Your task to perform on an android device: turn on the 24-hour format for clock Image 0: 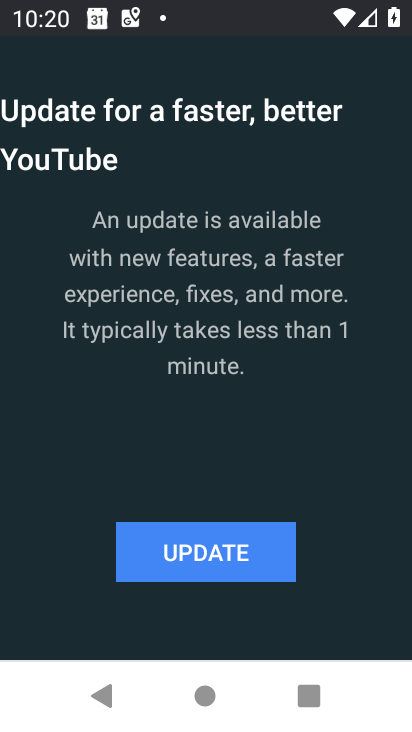
Step 0: press home button
Your task to perform on an android device: turn on the 24-hour format for clock Image 1: 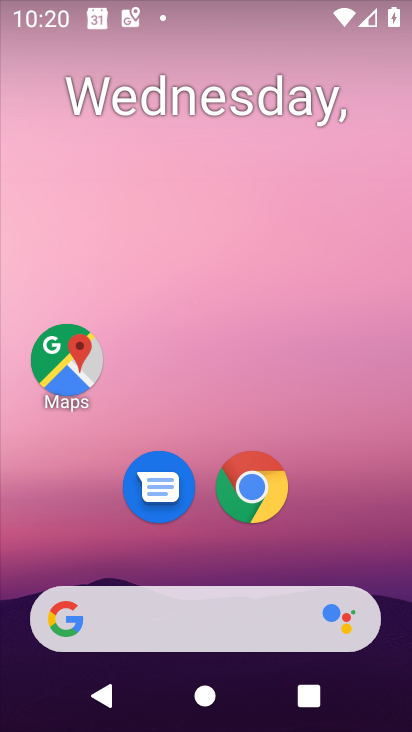
Step 1: drag from (141, 693) to (128, 149)
Your task to perform on an android device: turn on the 24-hour format for clock Image 2: 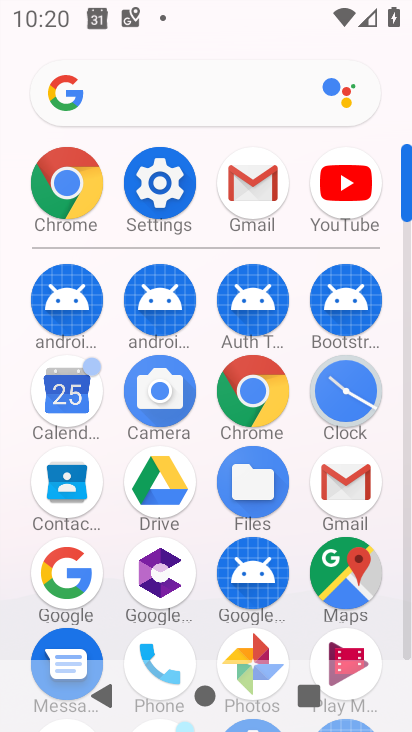
Step 2: click (326, 404)
Your task to perform on an android device: turn on the 24-hour format for clock Image 3: 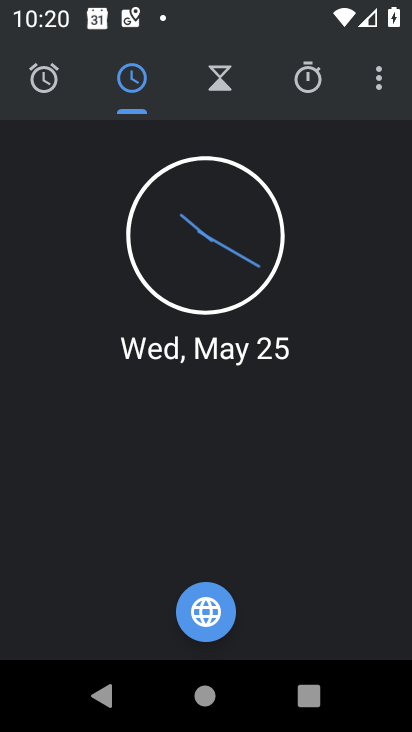
Step 3: click (375, 83)
Your task to perform on an android device: turn on the 24-hour format for clock Image 4: 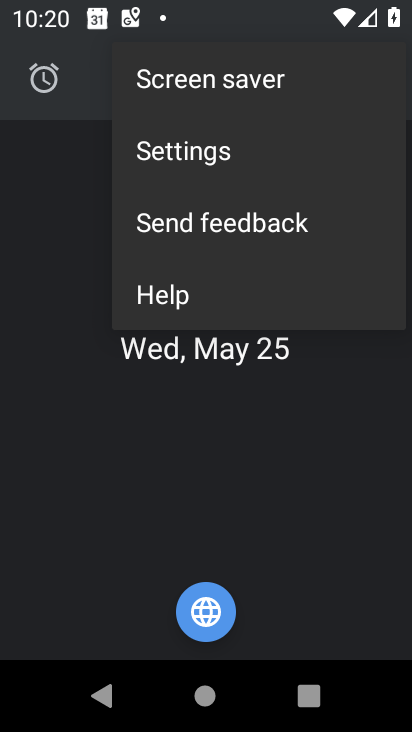
Step 4: click (237, 165)
Your task to perform on an android device: turn on the 24-hour format for clock Image 5: 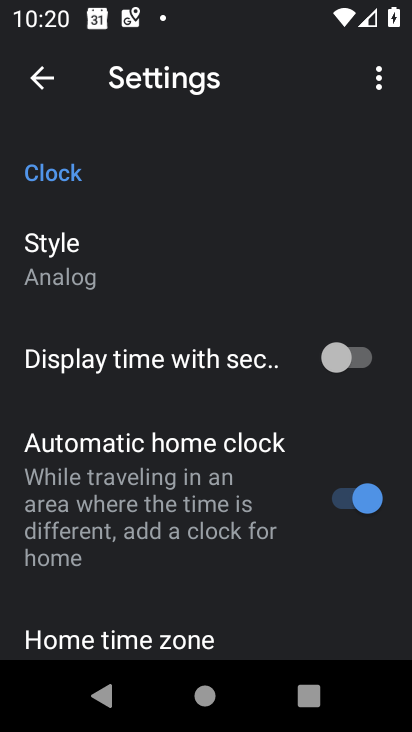
Step 5: drag from (206, 560) to (188, 117)
Your task to perform on an android device: turn on the 24-hour format for clock Image 6: 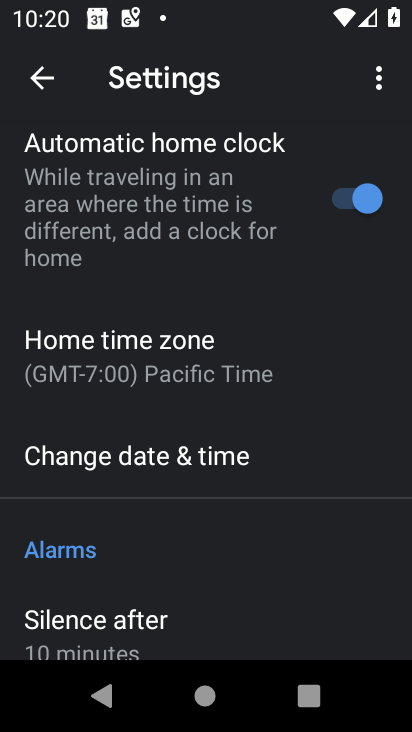
Step 6: click (183, 473)
Your task to perform on an android device: turn on the 24-hour format for clock Image 7: 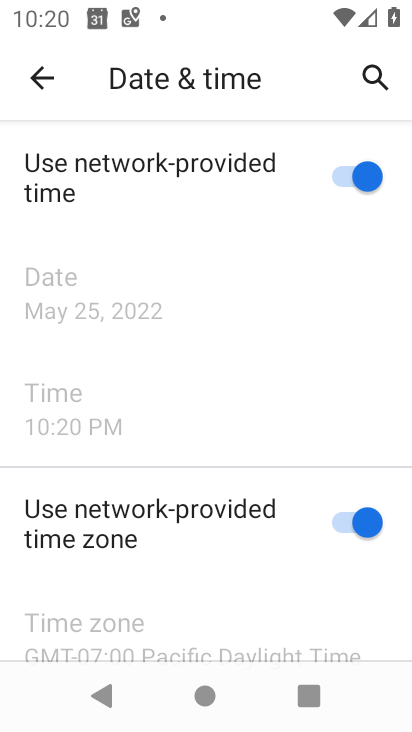
Step 7: drag from (249, 579) to (174, 52)
Your task to perform on an android device: turn on the 24-hour format for clock Image 8: 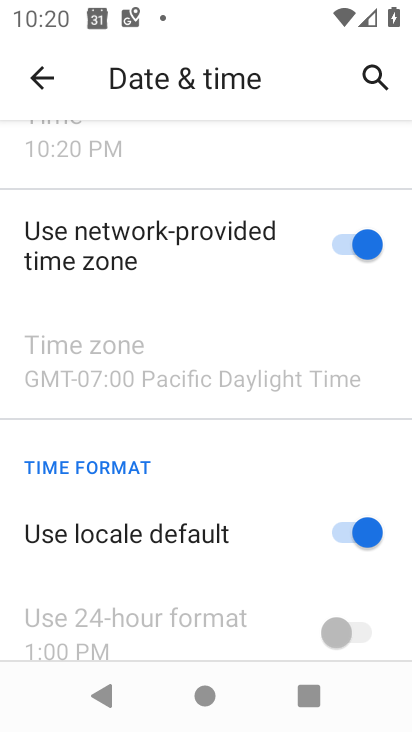
Step 8: click (355, 539)
Your task to perform on an android device: turn on the 24-hour format for clock Image 9: 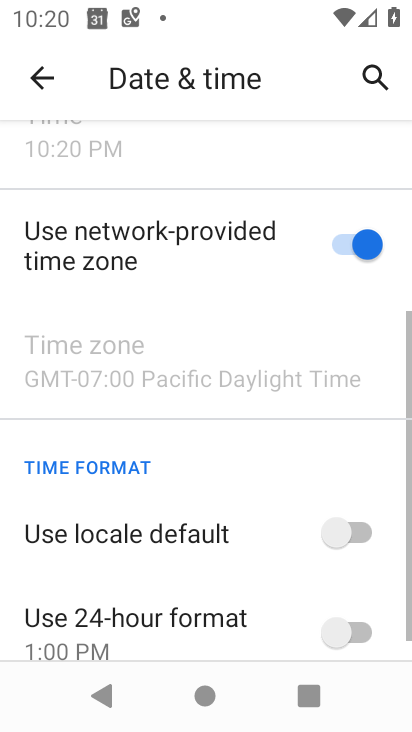
Step 9: click (355, 637)
Your task to perform on an android device: turn on the 24-hour format for clock Image 10: 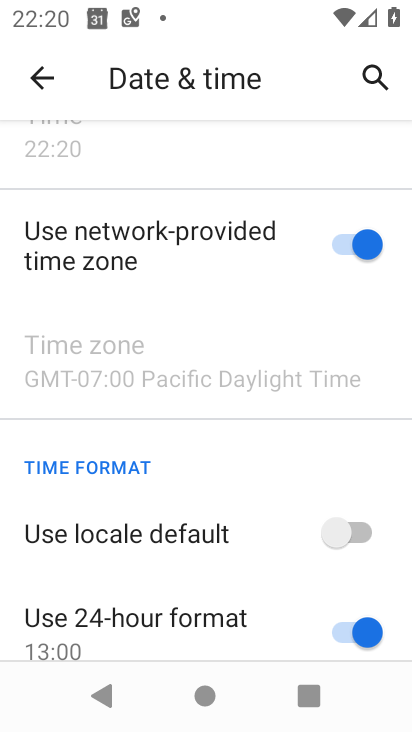
Step 10: task complete